Your task to perform on an android device: open app "Nova Launcher" Image 0: 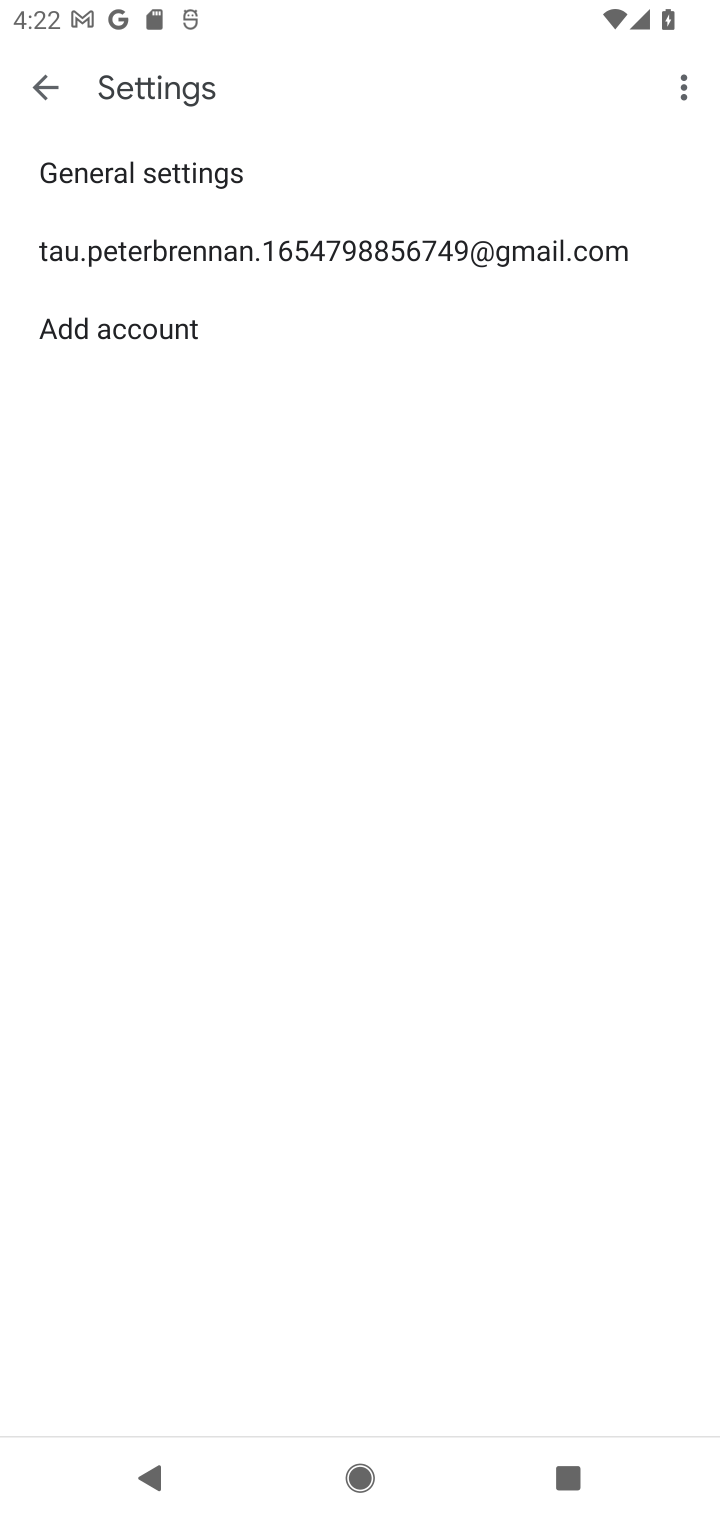
Step 0: press home button
Your task to perform on an android device: open app "Nova Launcher" Image 1: 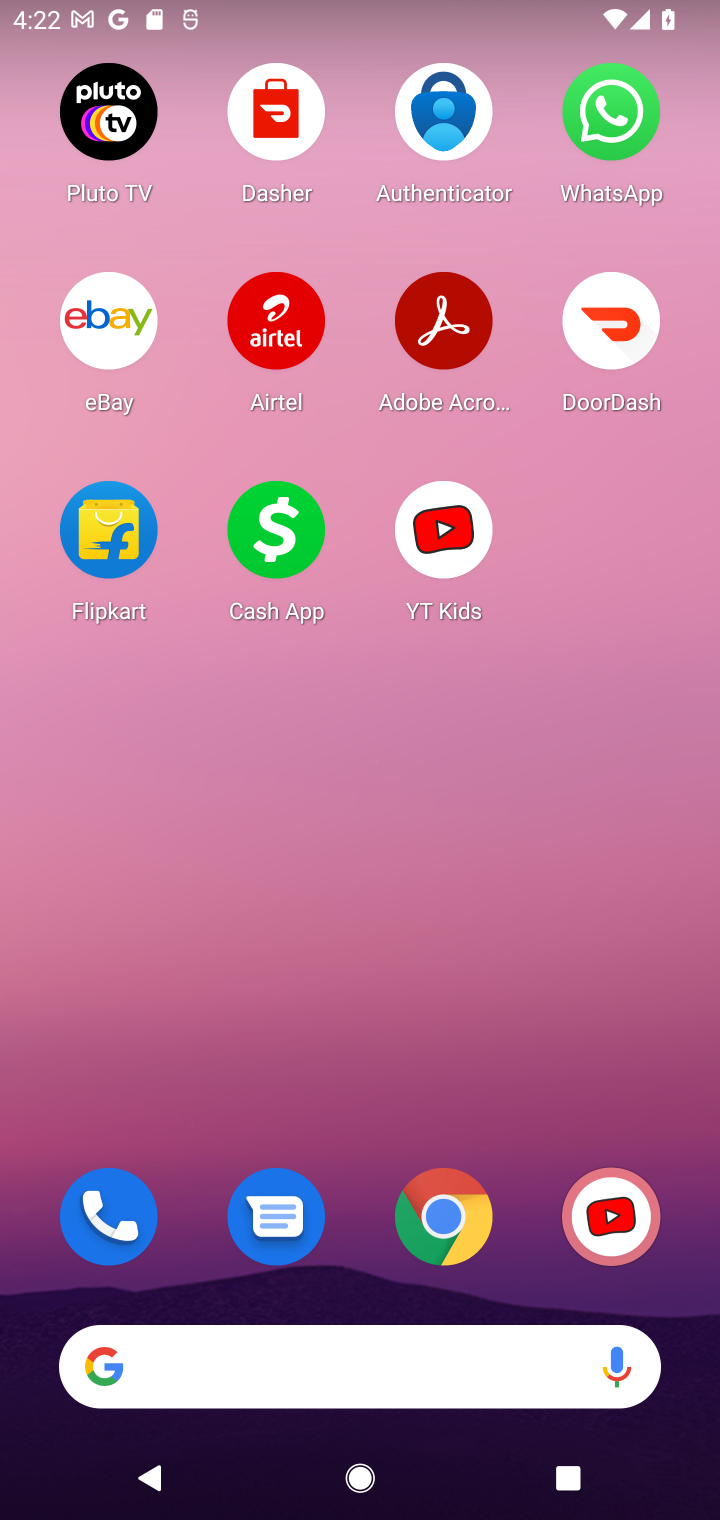
Step 1: drag from (293, 1000) to (355, 230)
Your task to perform on an android device: open app "Nova Launcher" Image 2: 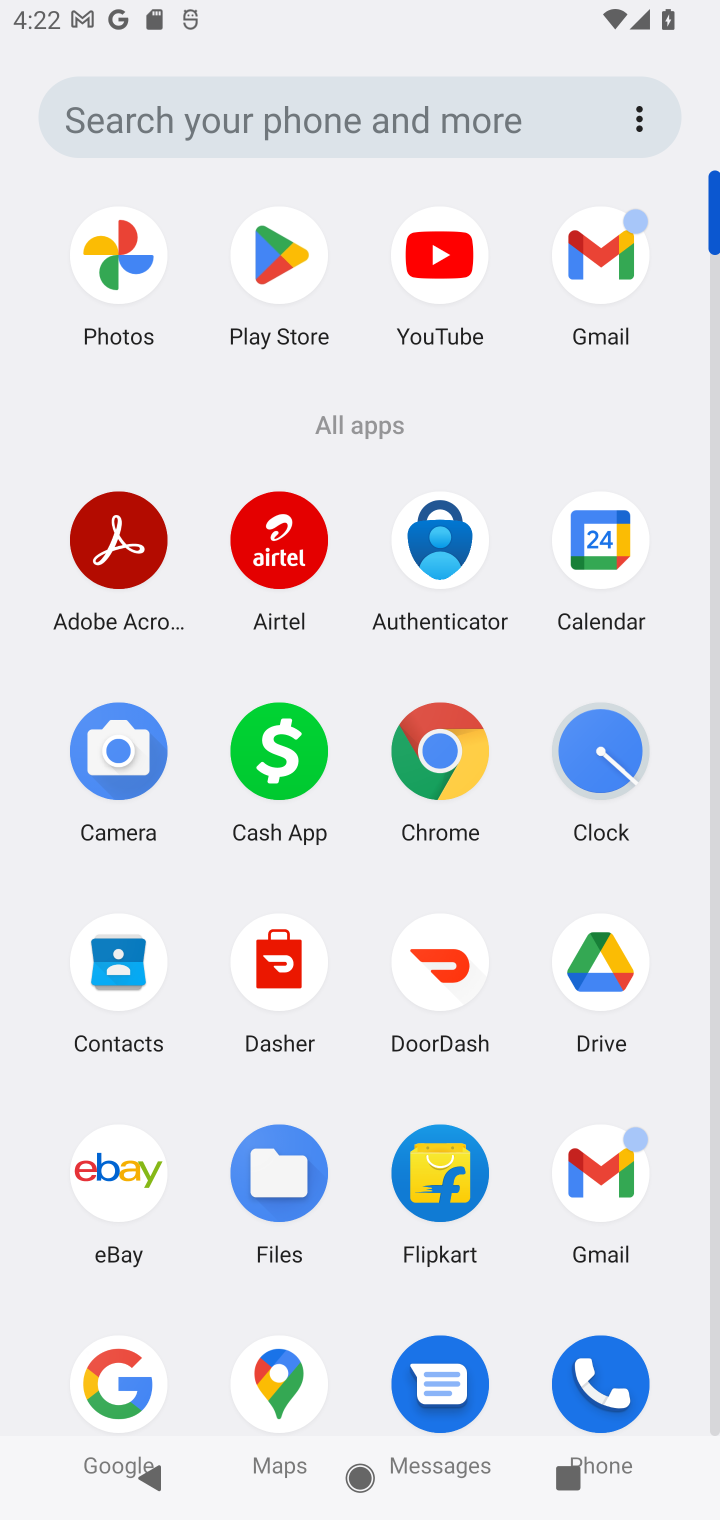
Step 2: click (314, 259)
Your task to perform on an android device: open app "Nova Launcher" Image 3: 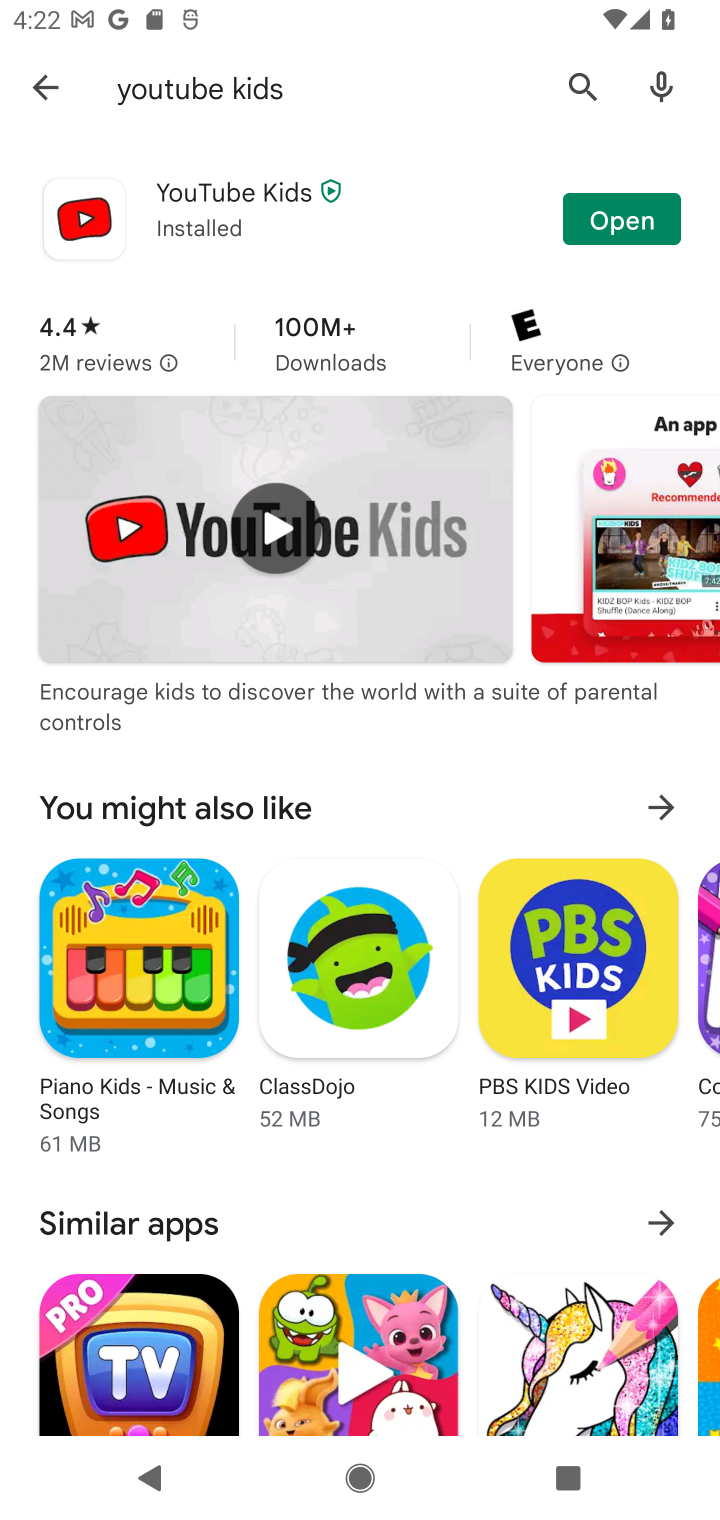
Step 3: click (564, 84)
Your task to perform on an android device: open app "Nova Launcher" Image 4: 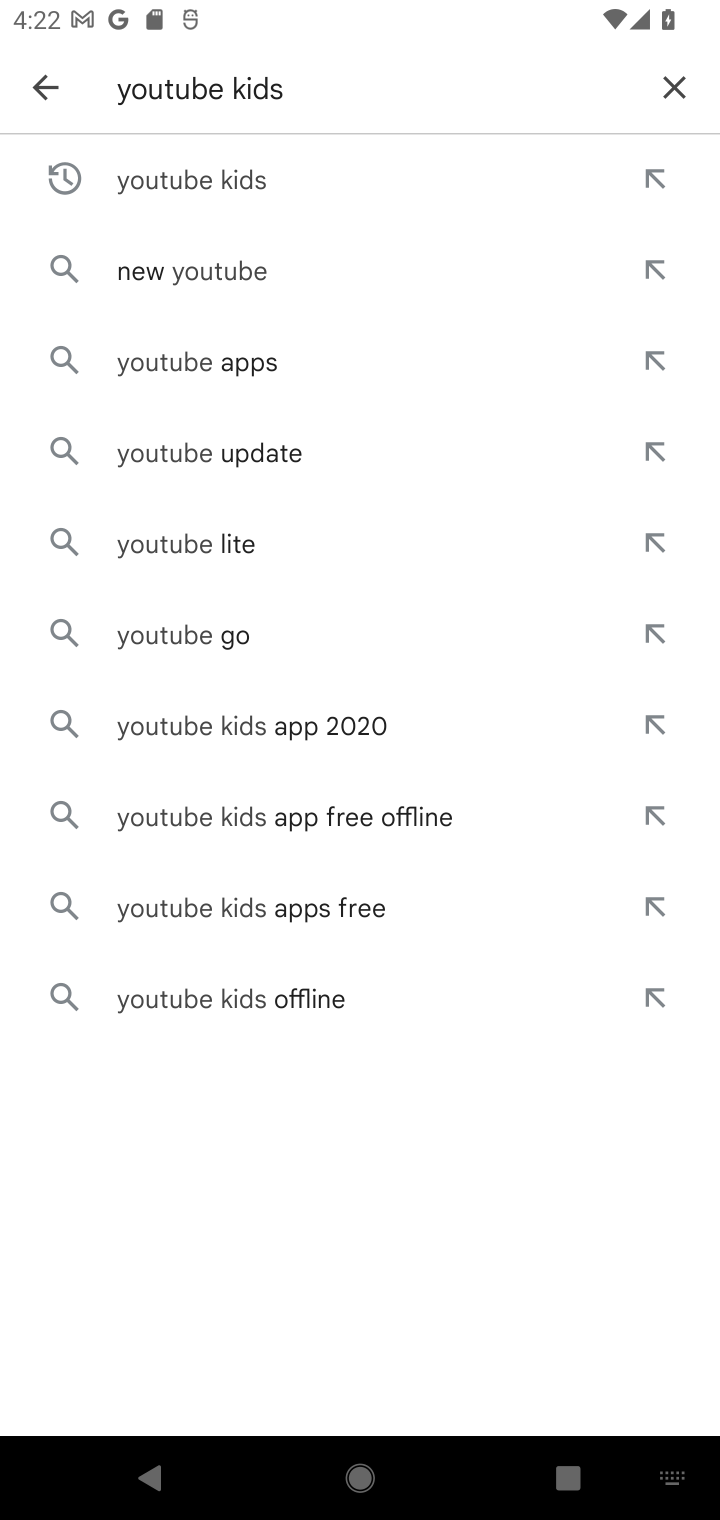
Step 4: click (676, 85)
Your task to perform on an android device: open app "Nova Launcher" Image 5: 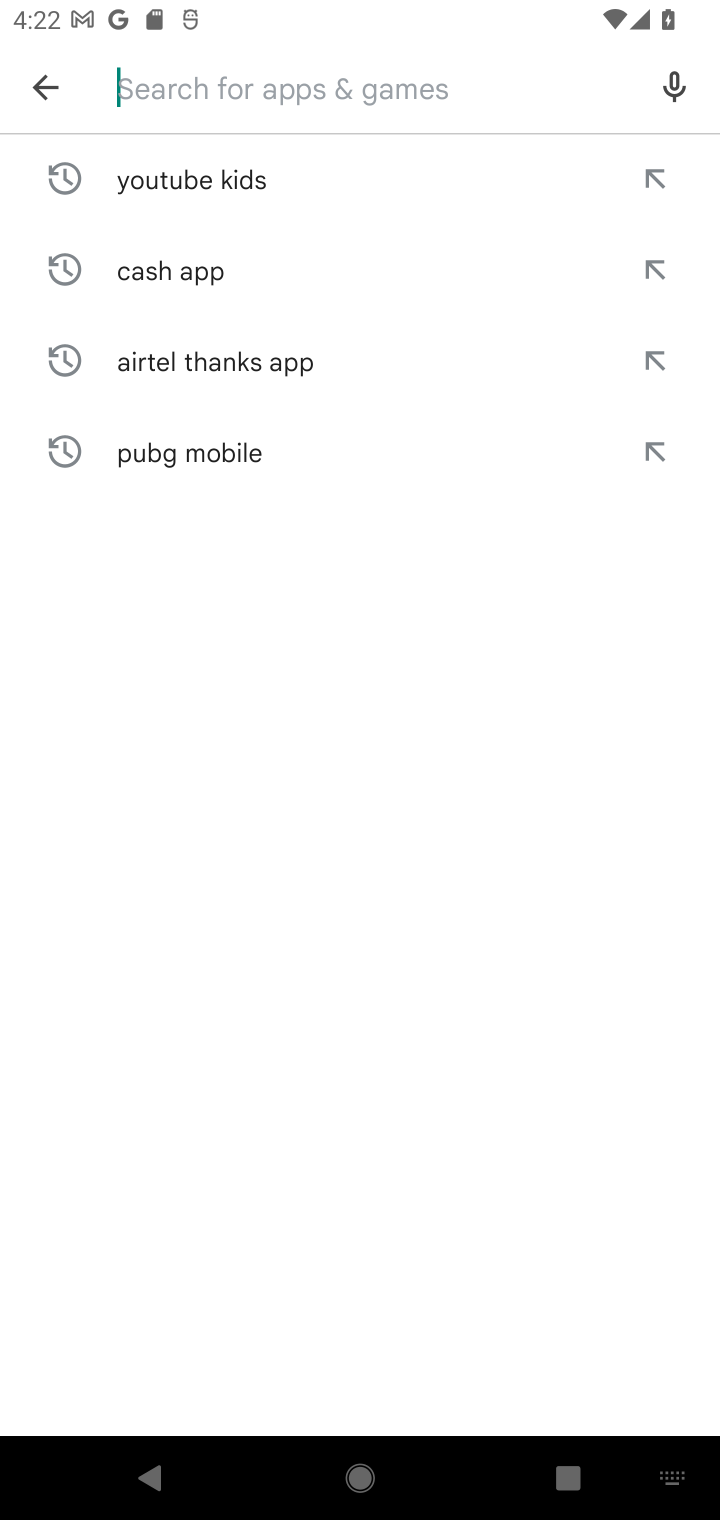
Step 5: type "Nova Launcher"
Your task to perform on an android device: open app "Nova Launcher" Image 6: 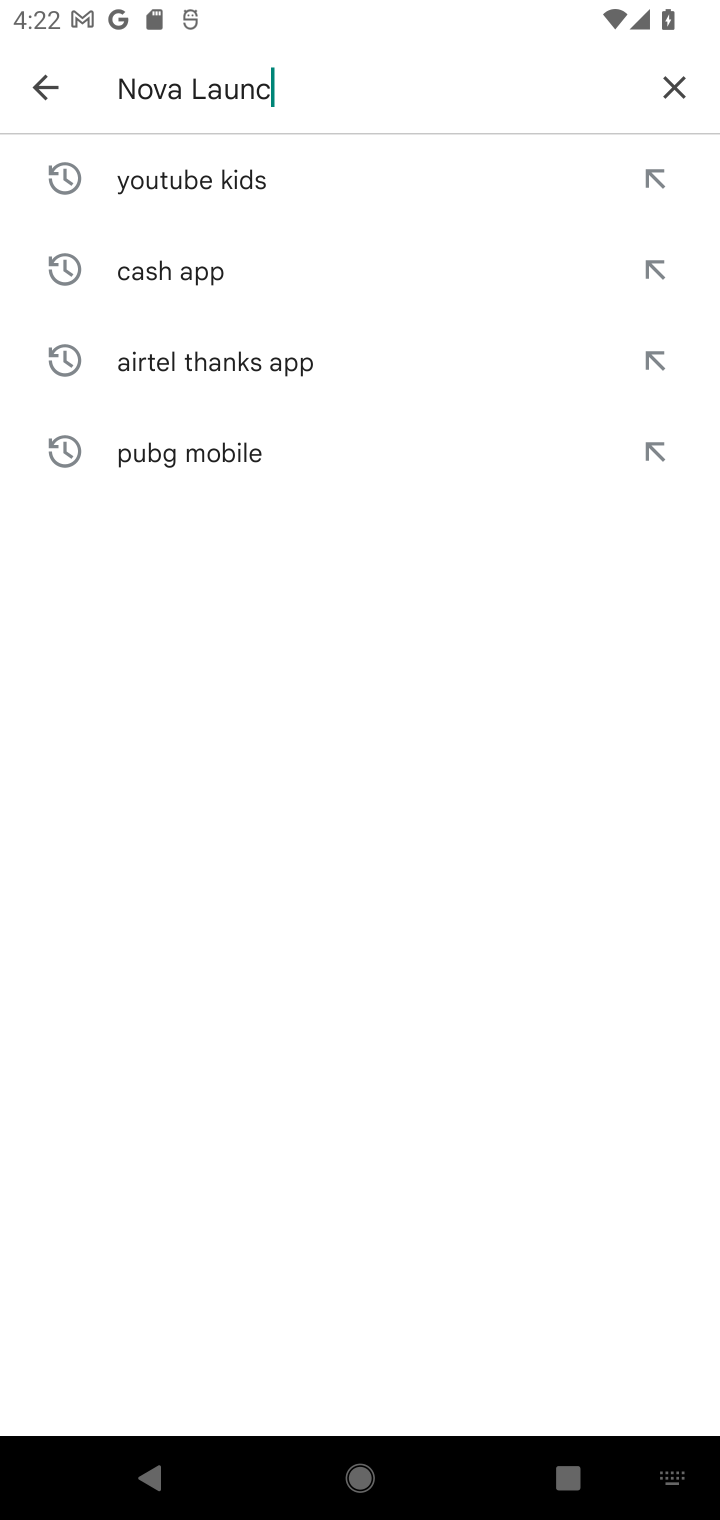
Step 6: type ""
Your task to perform on an android device: open app "Nova Launcher" Image 7: 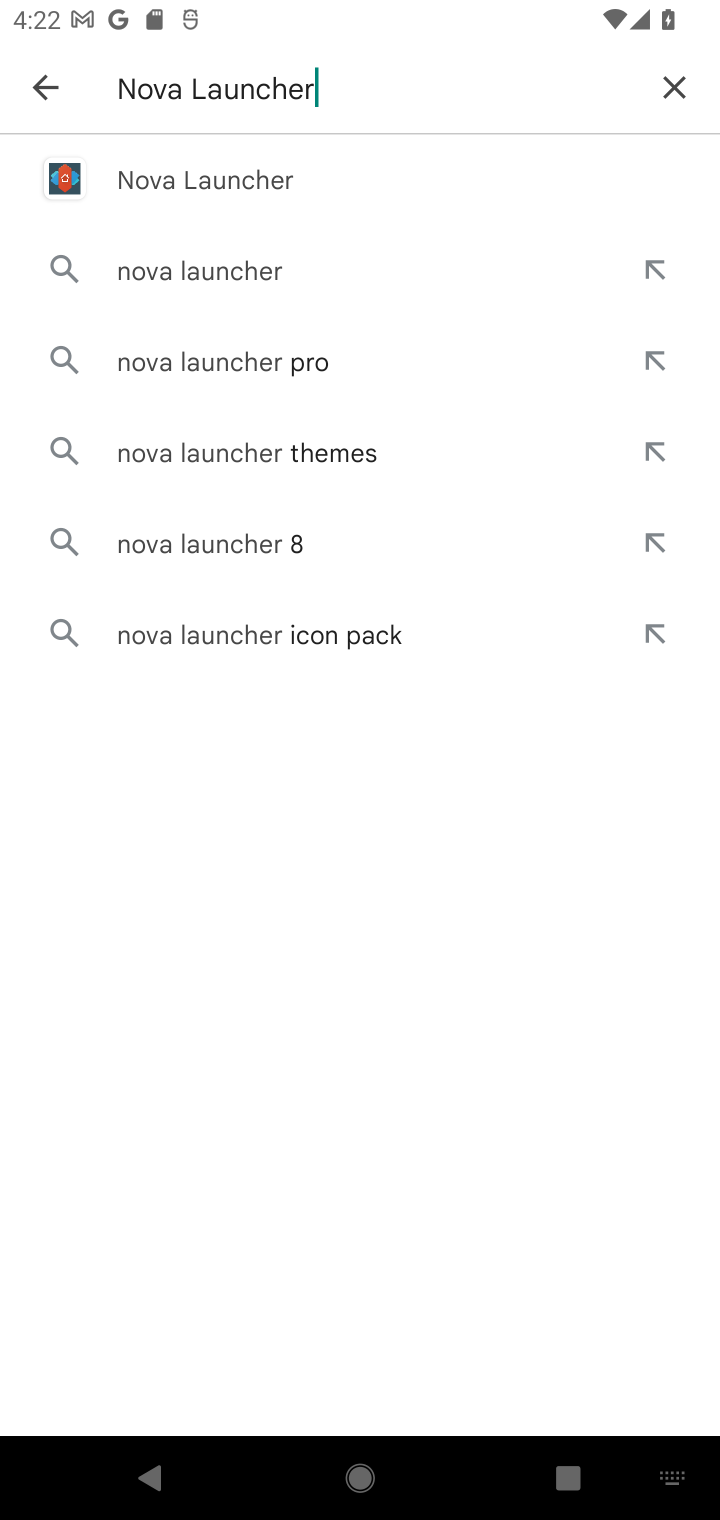
Step 7: click (215, 190)
Your task to perform on an android device: open app "Nova Launcher" Image 8: 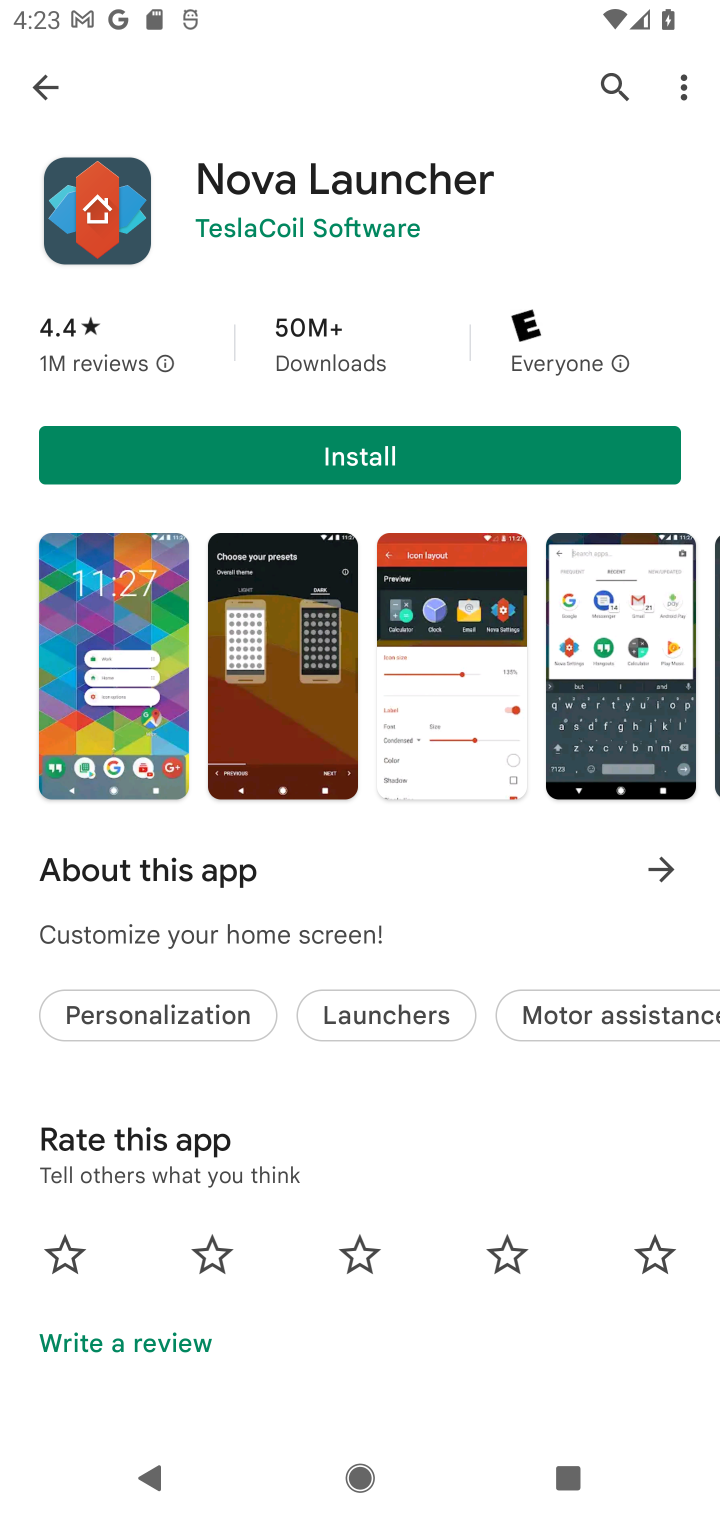
Step 8: task complete